Your task to perform on an android device: Open internet settings Image 0: 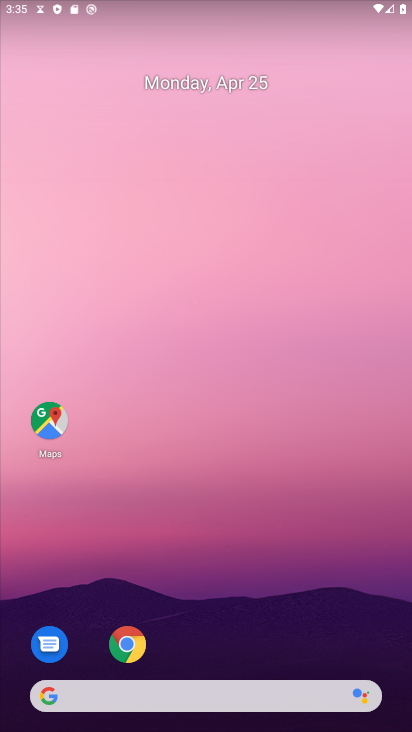
Step 0: drag from (207, 656) to (211, 24)
Your task to perform on an android device: Open internet settings Image 1: 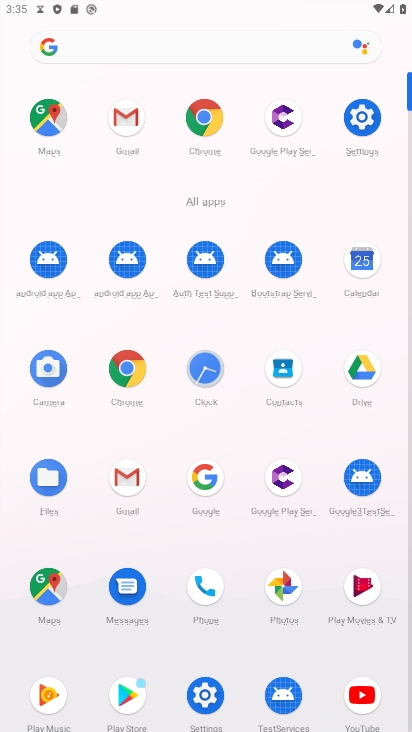
Step 1: click (361, 118)
Your task to perform on an android device: Open internet settings Image 2: 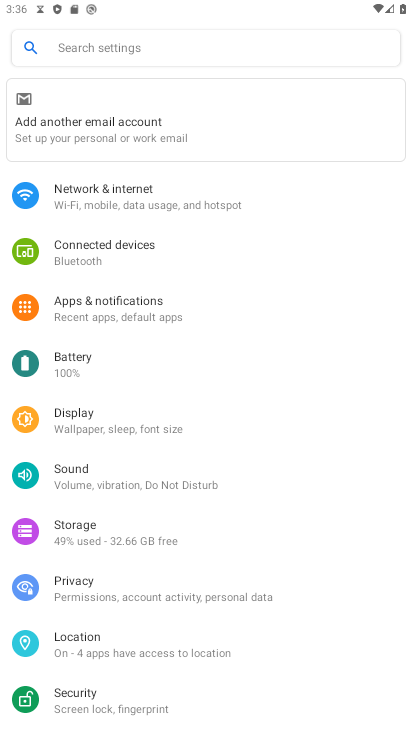
Step 2: click (200, 192)
Your task to perform on an android device: Open internet settings Image 3: 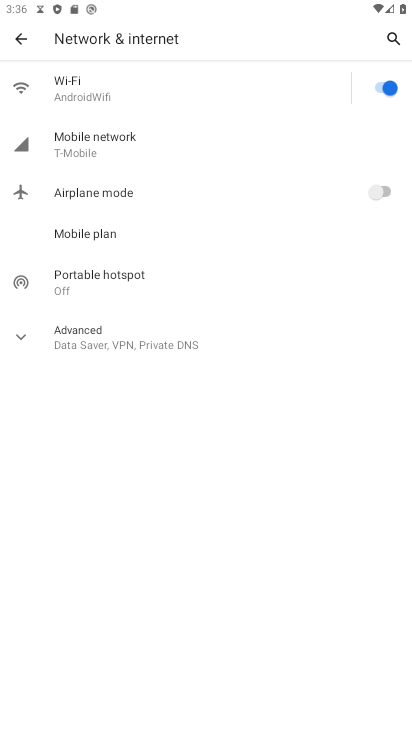
Step 3: click (61, 334)
Your task to perform on an android device: Open internet settings Image 4: 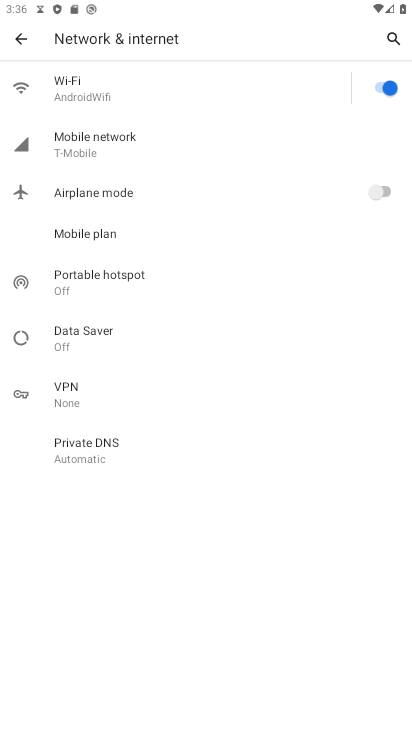
Step 4: task complete